Your task to perform on an android device: turn off notifications settings in the gmail app Image 0: 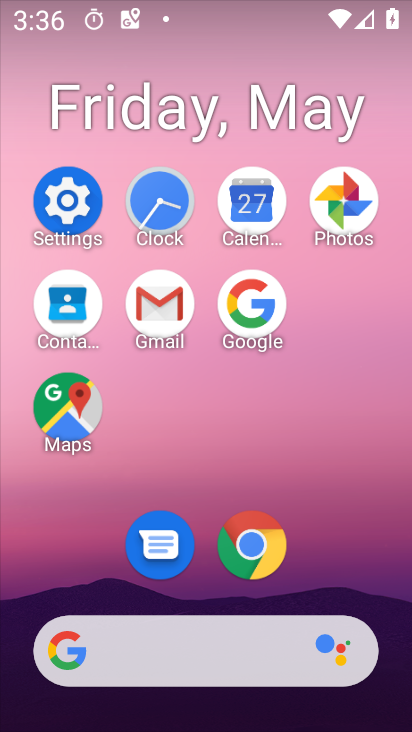
Step 0: click (45, 187)
Your task to perform on an android device: turn off notifications settings in the gmail app Image 1: 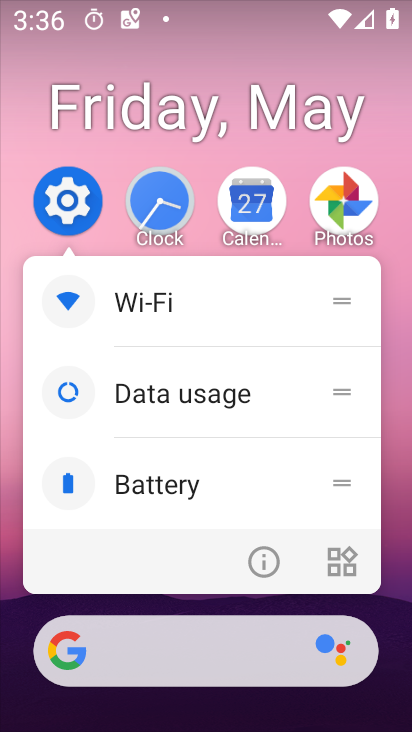
Step 1: click (398, 311)
Your task to perform on an android device: turn off notifications settings in the gmail app Image 2: 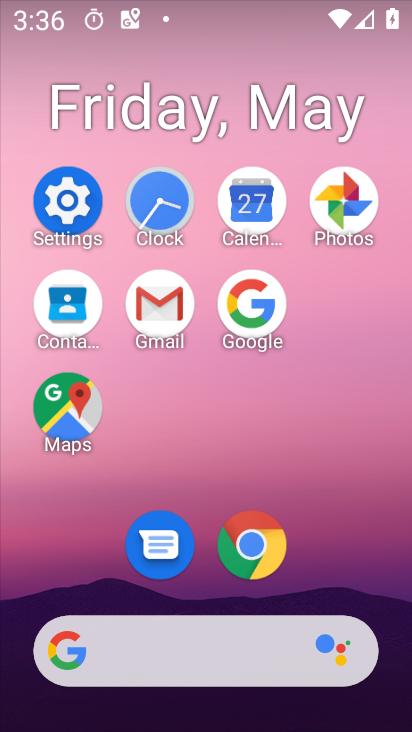
Step 2: click (144, 310)
Your task to perform on an android device: turn off notifications settings in the gmail app Image 3: 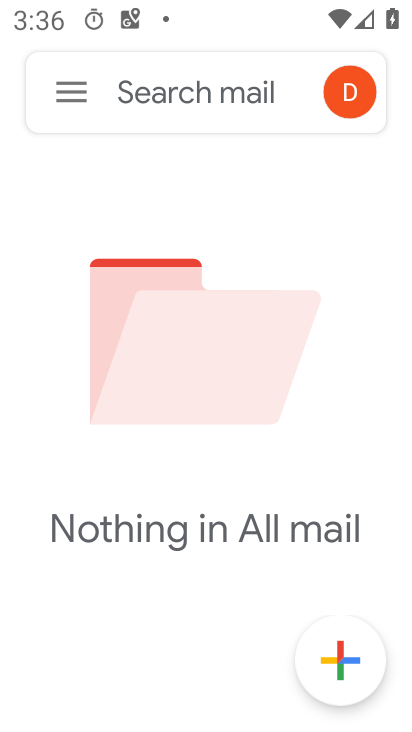
Step 3: click (75, 108)
Your task to perform on an android device: turn off notifications settings in the gmail app Image 4: 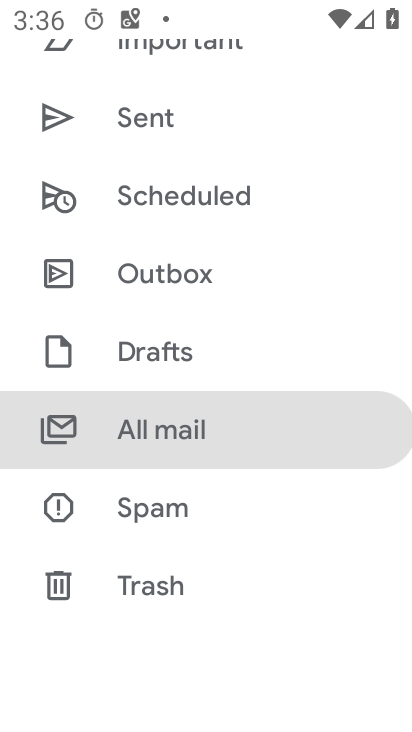
Step 4: drag from (279, 591) to (280, 269)
Your task to perform on an android device: turn off notifications settings in the gmail app Image 5: 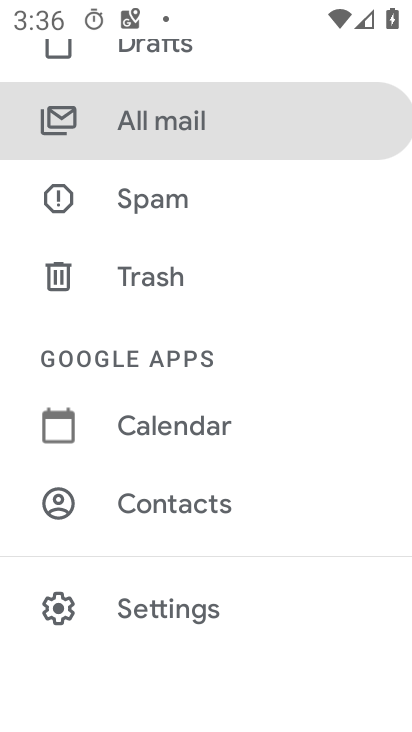
Step 5: click (215, 590)
Your task to perform on an android device: turn off notifications settings in the gmail app Image 6: 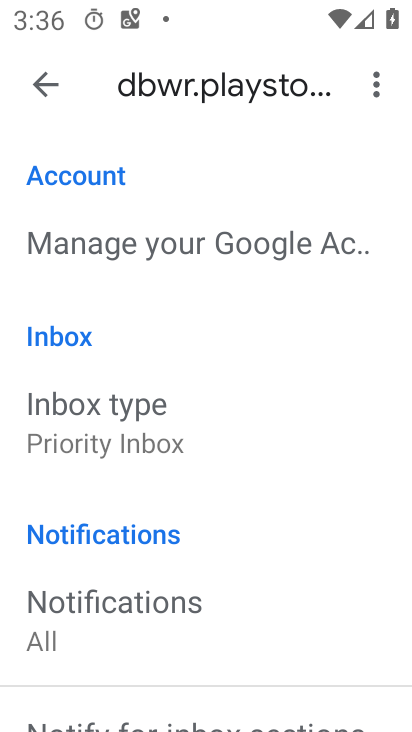
Step 6: click (244, 594)
Your task to perform on an android device: turn off notifications settings in the gmail app Image 7: 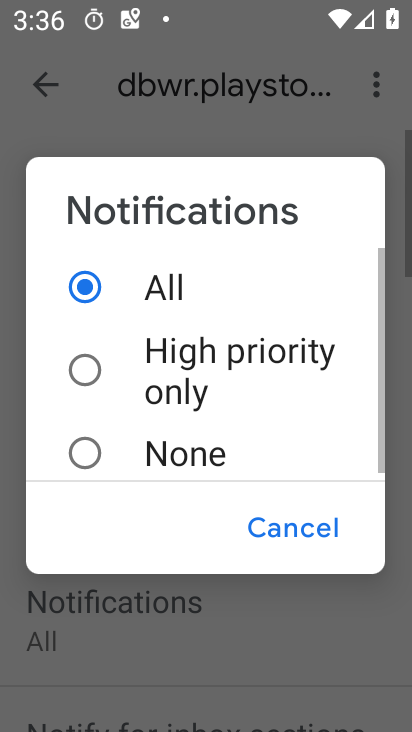
Step 7: click (178, 455)
Your task to perform on an android device: turn off notifications settings in the gmail app Image 8: 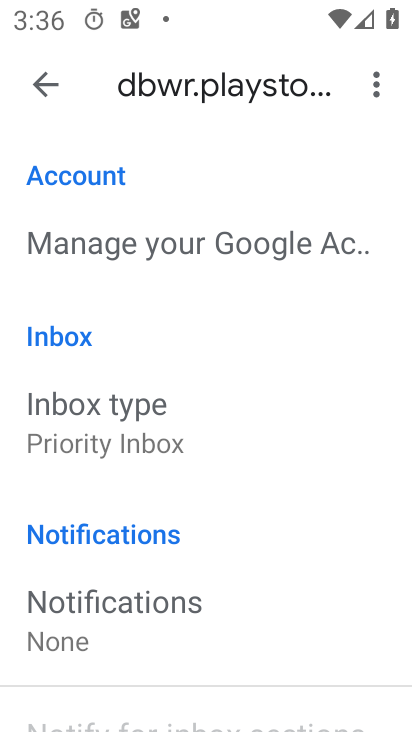
Step 8: task complete